Your task to perform on an android device: Search for seafood restaurants on Google Maps Image 0: 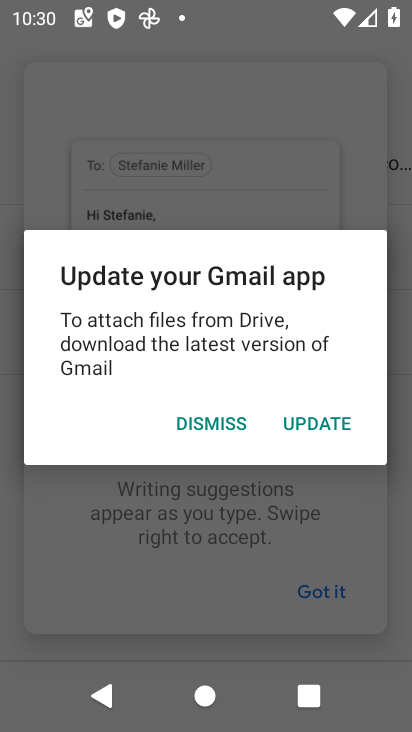
Step 0: press home button
Your task to perform on an android device: Search for seafood restaurants on Google Maps Image 1: 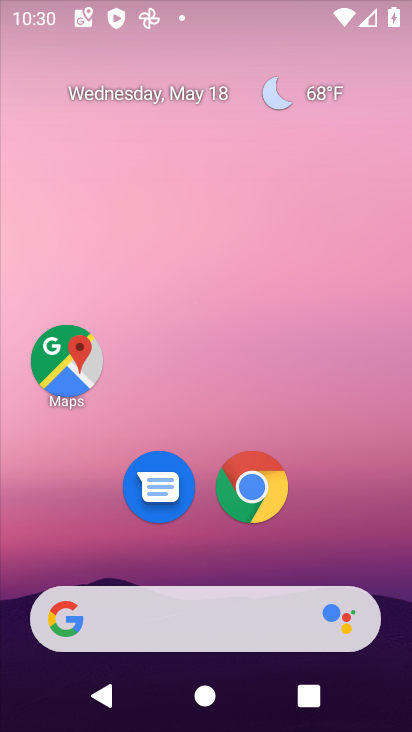
Step 1: drag from (349, 480) to (301, 192)
Your task to perform on an android device: Search for seafood restaurants on Google Maps Image 2: 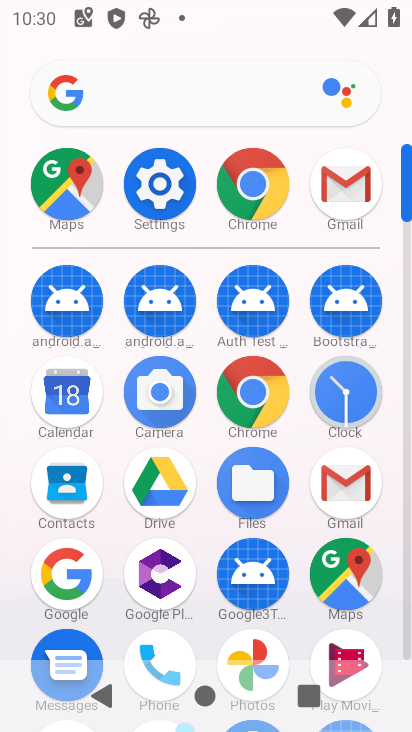
Step 2: click (333, 561)
Your task to perform on an android device: Search for seafood restaurants on Google Maps Image 3: 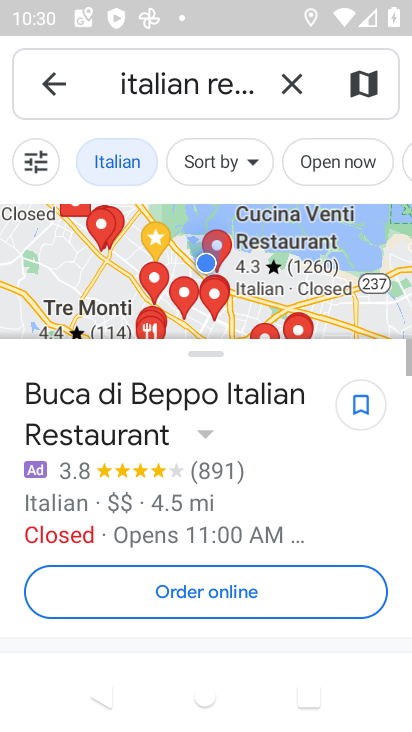
Step 3: click (297, 87)
Your task to perform on an android device: Search for seafood restaurants on Google Maps Image 4: 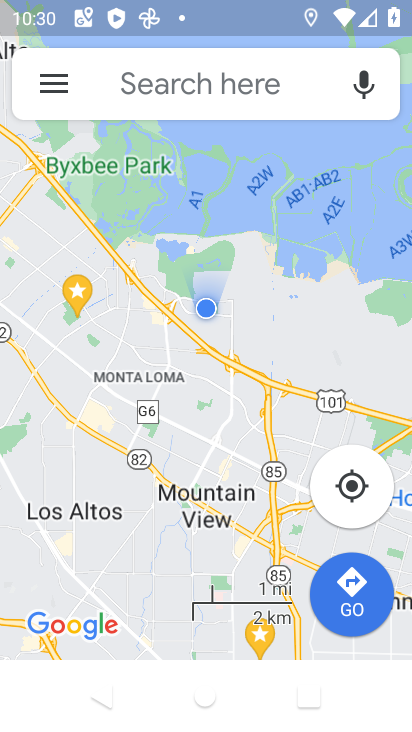
Step 4: click (203, 89)
Your task to perform on an android device: Search for seafood restaurants on Google Maps Image 5: 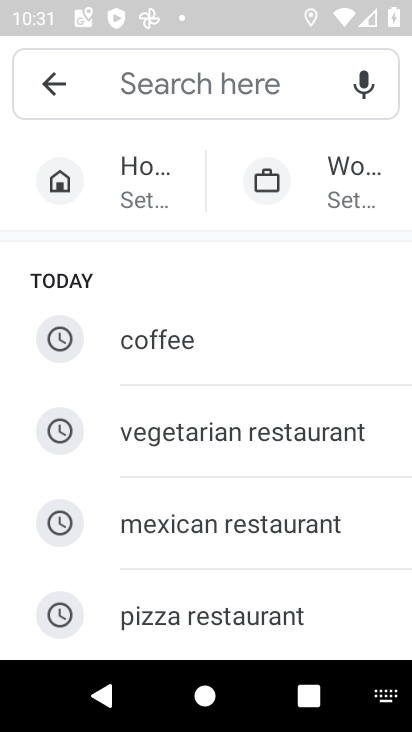
Step 5: type "seafood restaurants "
Your task to perform on an android device: Search for seafood restaurants on Google Maps Image 6: 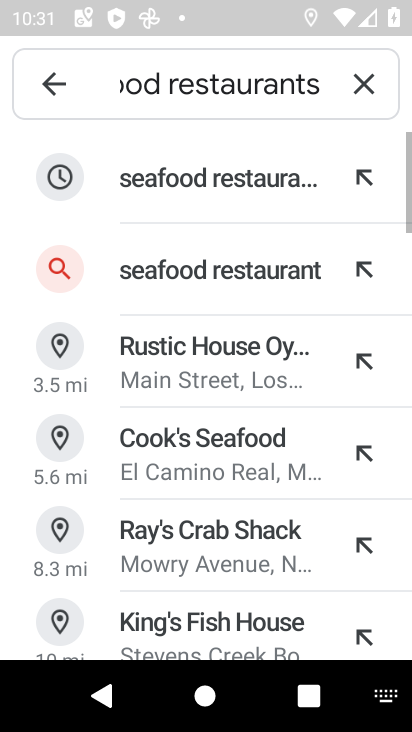
Step 6: click (218, 164)
Your task to perform on an android device: Search for seafood restaurants on Google Maps Image 7: 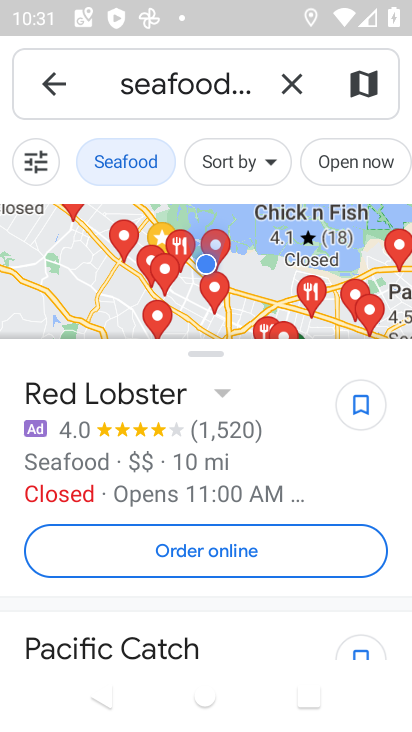
Step 7: task complete